Your task to perform on an android device: toggle data saver in the chrome app Image 0: 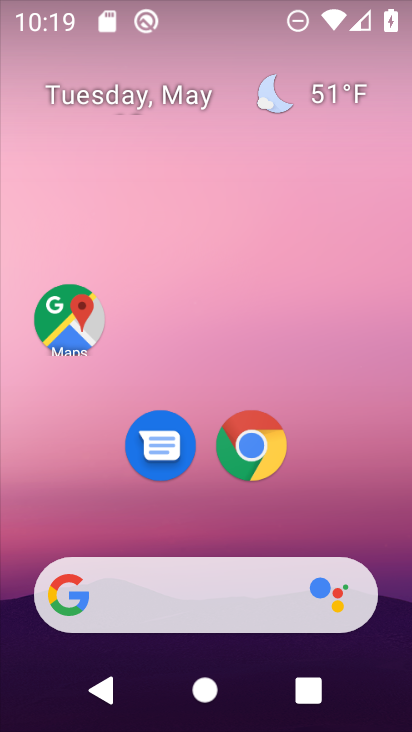
Step 0: click (236, 465)
Your task to perform on an android device: toggle data saver in the chrome app Image 1: 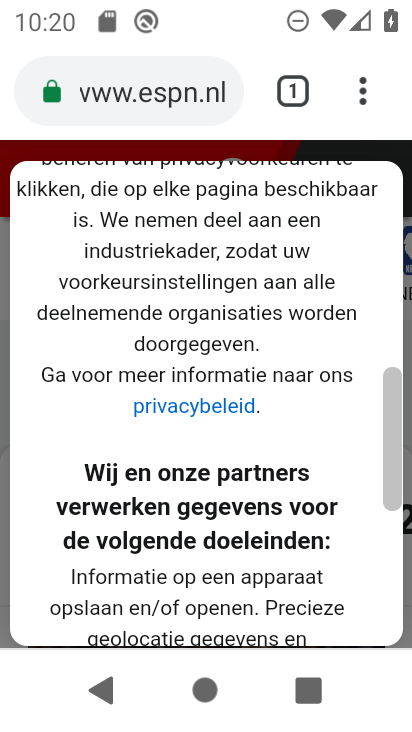
Step 1: drag from (354, 85) to (113, 478)
Your task to perform on an android device: toggle data saver in the chrome app Image 2: 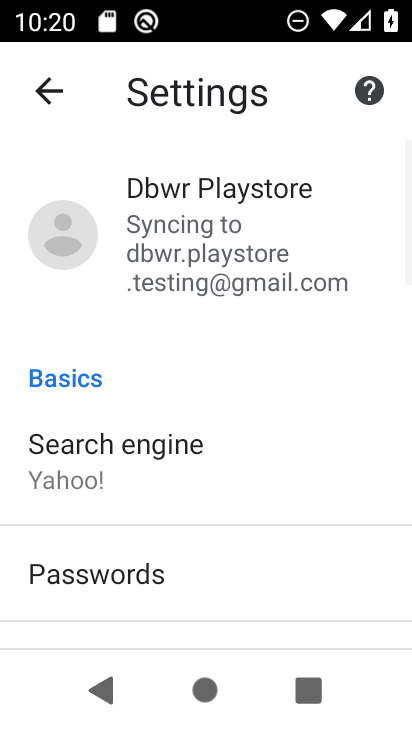
Step 2: drag from (145, 35) to (73, 8)
Your task to perform on an android device: toggle data saver in the chrome app Image 3: 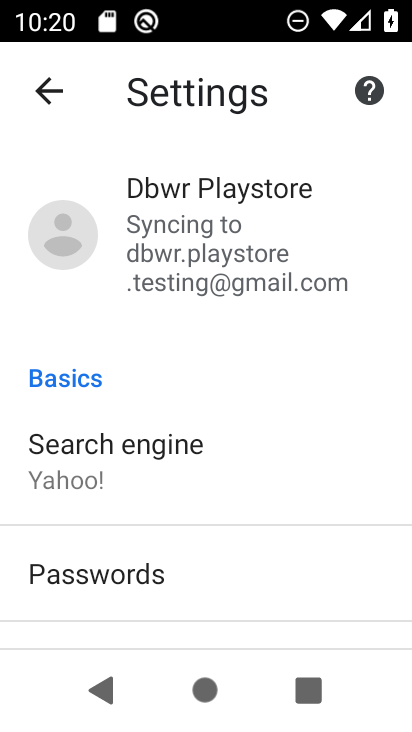
Step 3: drag from (191, 561) to (171, 42)
Your task to perform on an android device: toggle data saver in the chrome app Image 4: 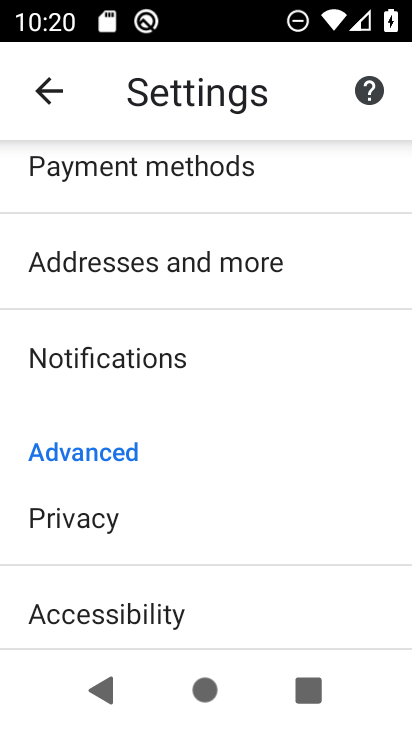
Step 4: drag from (127, 563) to (109, 5)
Your task to perform on an android device: toggle data saver in the chrome app Image 5: 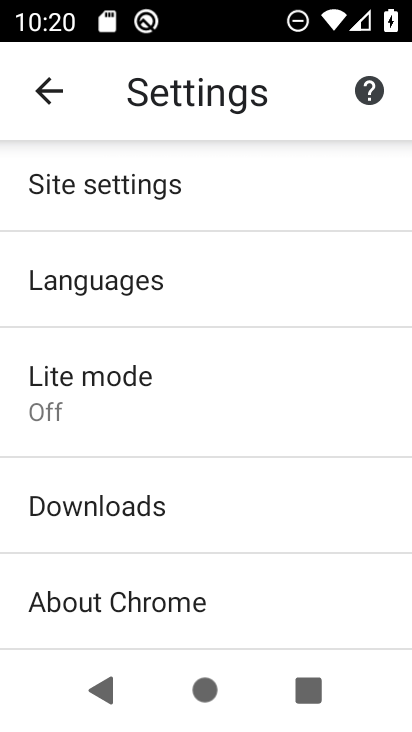
Step 5: click (120, 422)
Your task to perform on an android device: toggle data saver in the chrome app Image 6: 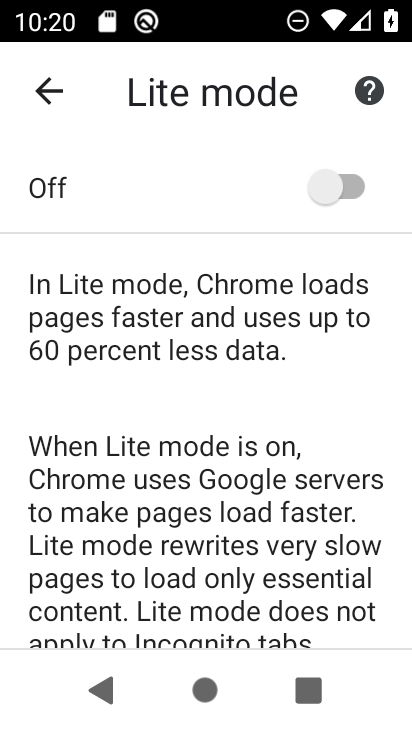
Step 6: click (342, 187)
Your task to perform on an android device: toggle data saver in the chrome app Image 7: 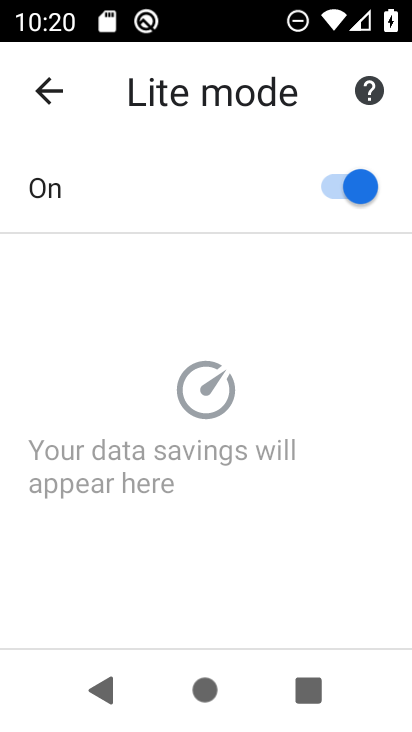
Step 7: task complete